Your task to perform on an android device: stop showing notifications on the lock screen Image 0: 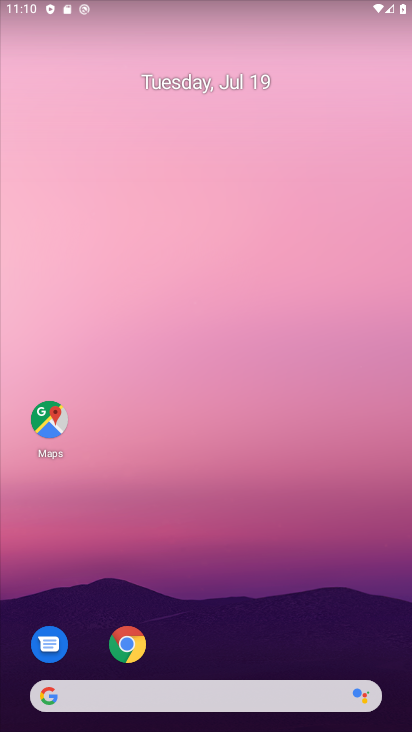
Step 0: drag from (215, 649) to (199, 111)
Your task to perform on an android device: stop showing notifications on the lock screen Image 1: 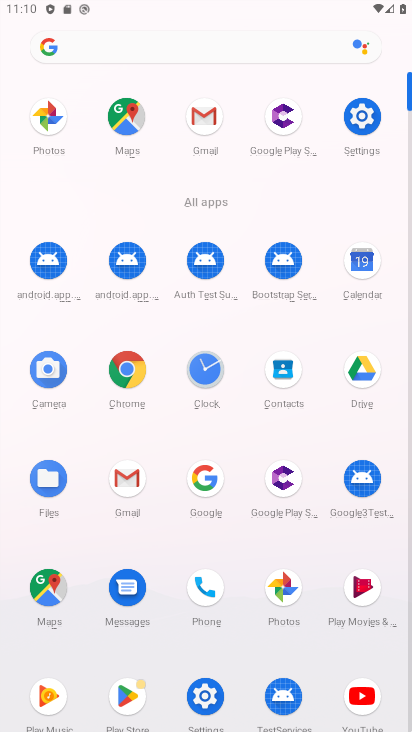
Step 1: click (201, 700)
Your task to perform on an android device: stop showing notifications on the lock screen Image 2: 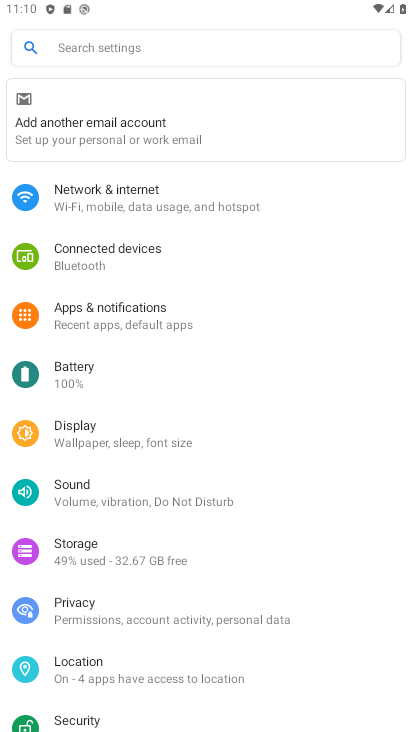
Step 2: click (111, 197)
Your task to perform on an android device: stop showing notifications on the lock screen Image 3: 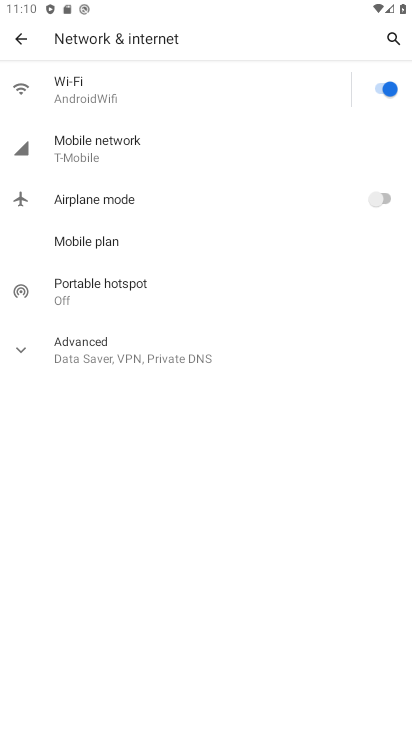
Step 3: click (12, 25)
Your task to perform on an android device: stop showing notifications on the lock screen Image 4: 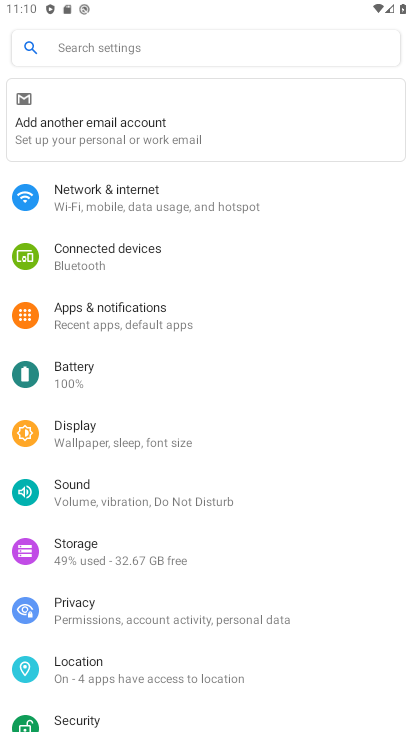
Step 4: click (135, 320)
Your task to perform on an android device: stop showing notifications on the lock screen Image 5: 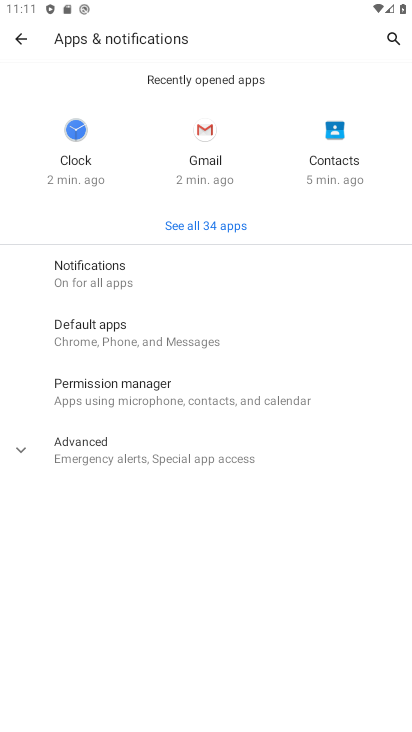
Step 5: click (120, 282)
Your task to perform on an android device: stop showing notifications on the lock screen Image 6: 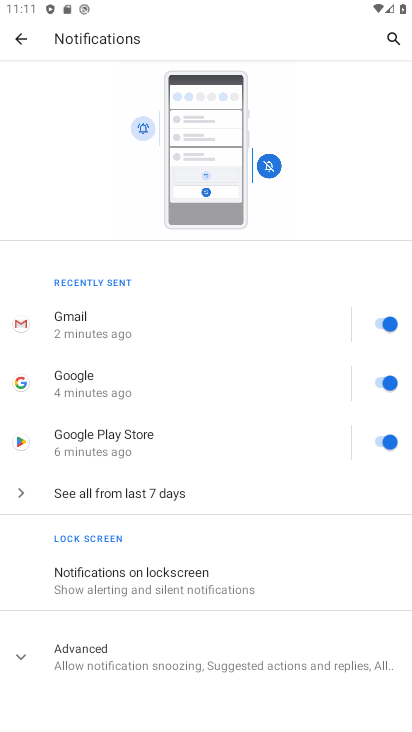
Step 6: drag from (183, 660) to (285, 237)
Your task to perform on an android device: stop showing notifications on the lock screen Image 7: 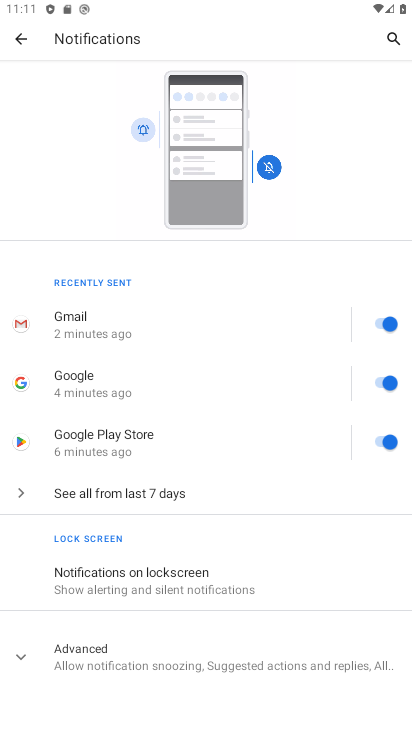
Step 7: drag from (190, 505) to (234, 240)
Your task to perform on an android device: stop showing notifications on the lock screen Image 8: 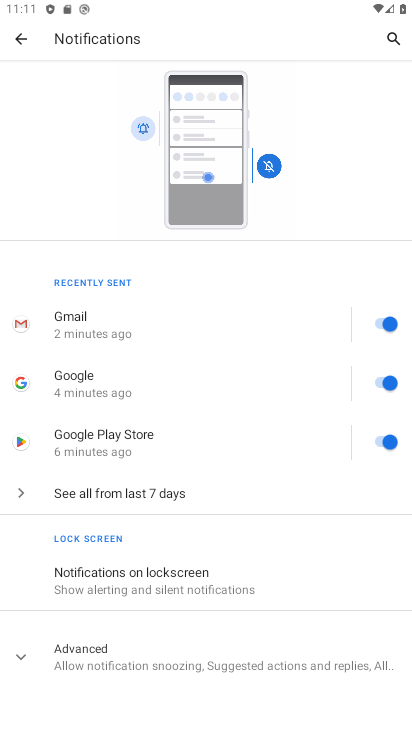
Step 8: drag from (162, 620) to (226, 298)
Your task to perform on an android device: stop showing notifications on the lock screen Image 9: 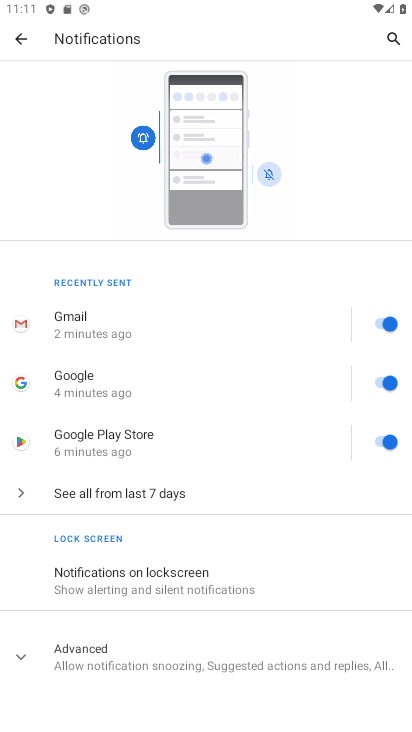
Step 9: drag from (150, 587) to (221, 238)
Your task to perform on an android device: stop showing notifications on the lock screen Image 10: 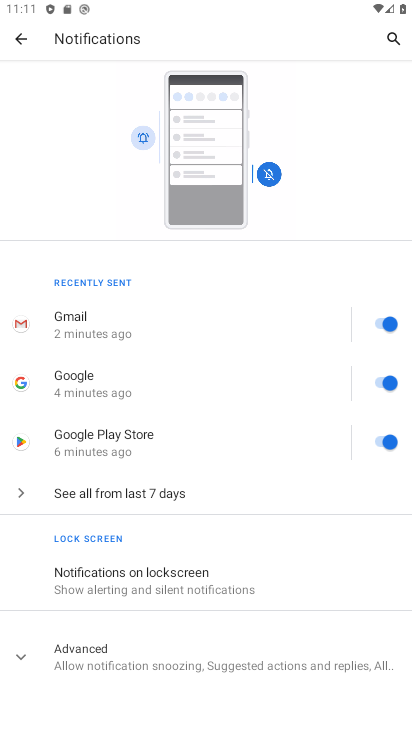
Step 10: click (94, 654)
Your task to perform on an android device: stop showing notifications on the lock screen Image 11: 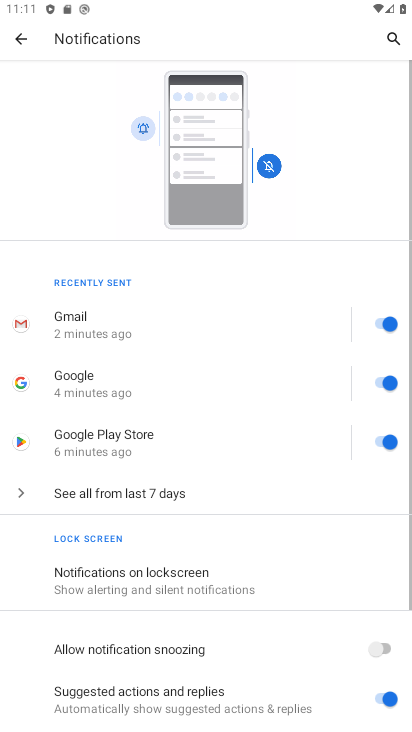
Step 11: click (165, 568)
Your task to perform on an android device: stop showing notifications on the lock screen Image 12: 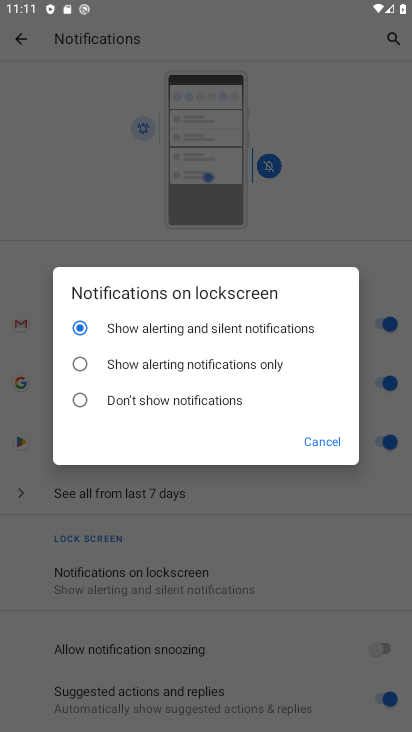
Step 12: click (95, 399)
Your task to perform on an android device: stop showing notifications on the lock screen Image 13: 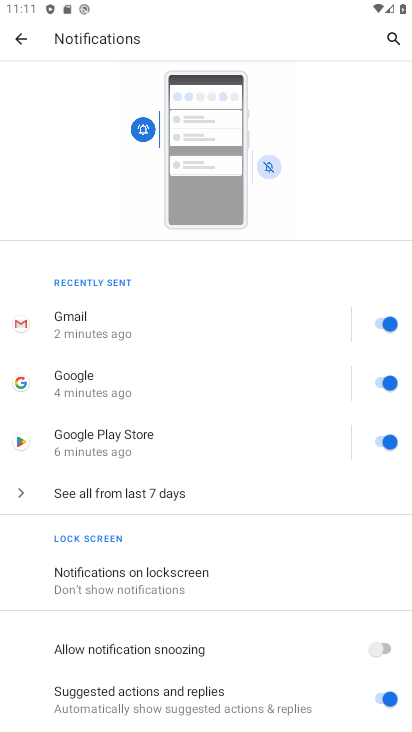
Step 13: task complete